Your task to perform on an android device: Open calendar and show me the first week of next month Image 0: 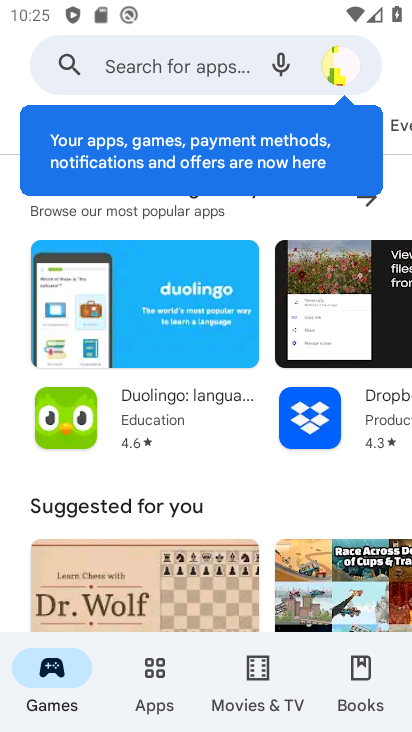
Step 0: press back button
Your task to perform on an android device: Open calendar and show me the first week of next month Image 1: 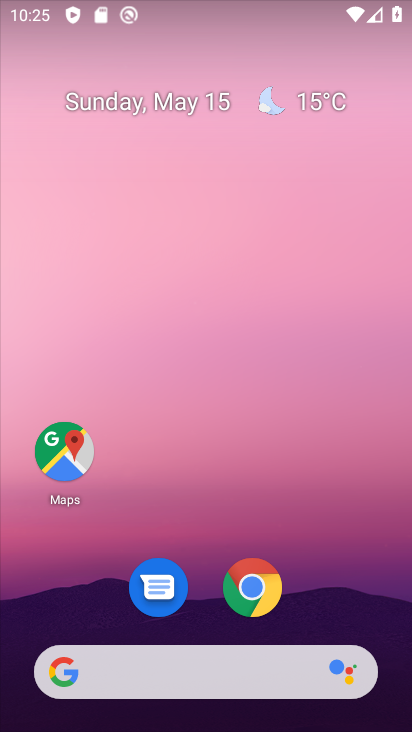
Step 1: drag from (73, 626) to (194, 217)
Your task to perform on an android device: Open calendar and show me the first week of next month Image 2: 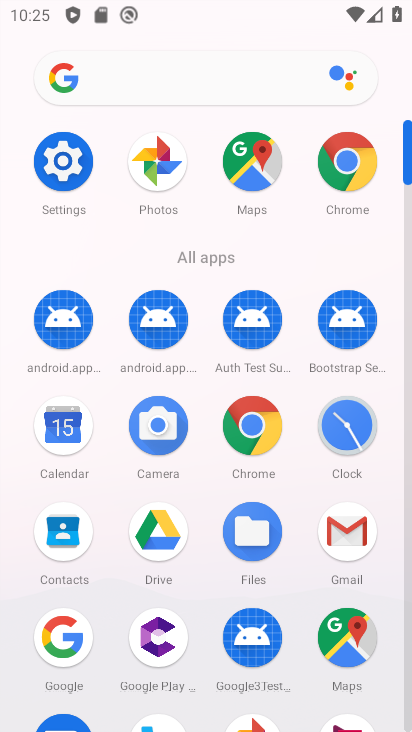
Step 2: click (77, 443)
Your task to perform on an android device: Open calendar and show me the first week of next month Image 3: 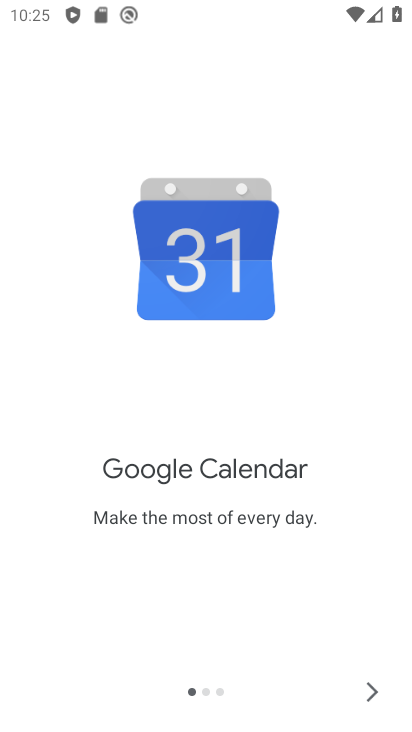
Step 3: click (351, 701)
Your task to perform on an android device: Open calendar and show me the first week of next month Image 4: 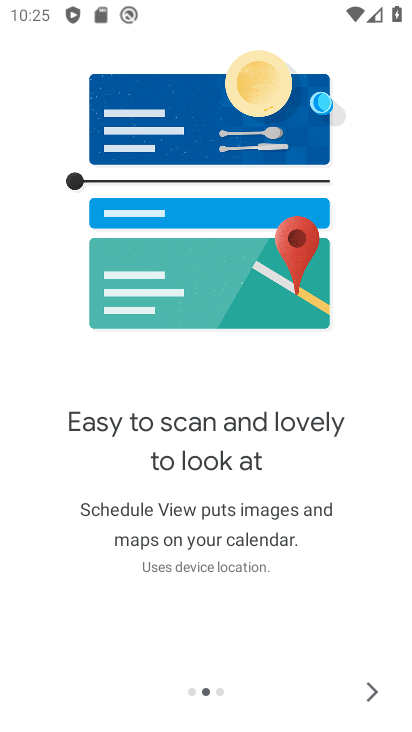
Step 4: click (353, 702)
Your task to perform on an android device: Open calendar and show me the first week of next month Image 5: 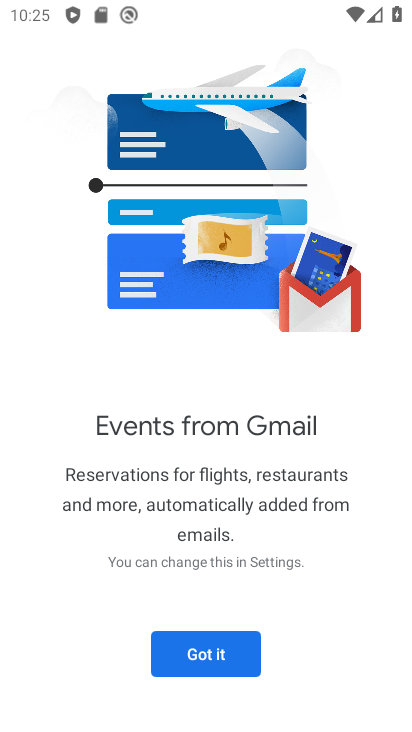
Step 5: click (203, 642)
Your task to perform on an android device: Open calendar and show me the first week of next month Image 6: 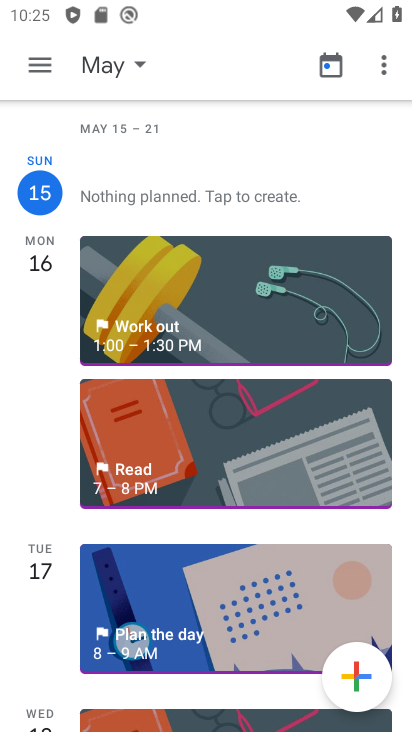
Step 6: click (100, 54)
Your task to perform on an android device: Open calendar and show me the first week of next month Image 7: 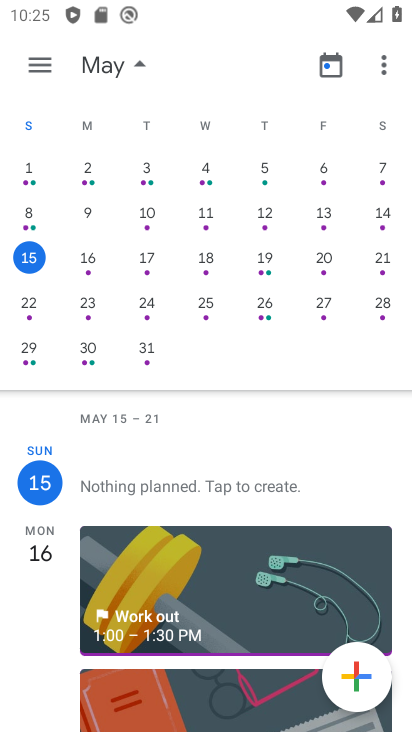
Step 7: drag from (339, 330) to (24, 275)
Your task to perform on an android device: Open calendar and show me the first week of next month Image 8: 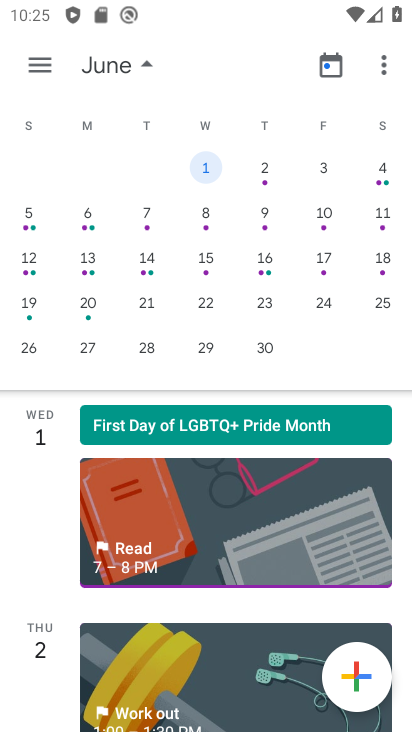
Step 8: click (29, 215)
Your task to perform on an android device: Open calendar and show me the first week of next month Image 9: 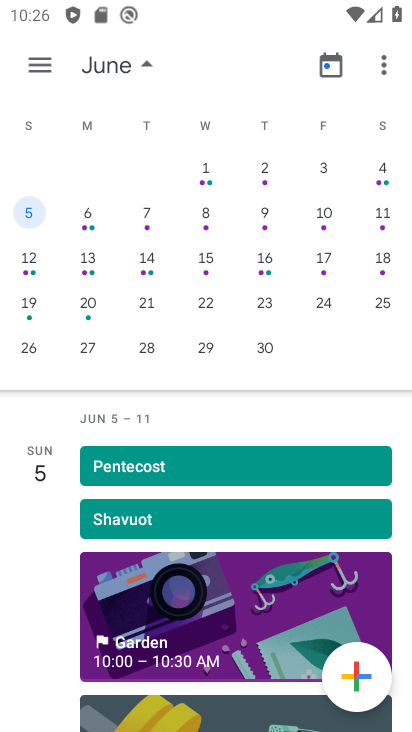
Step 9: click (36, 41)
Your task to perform on an android device: Open calendar and show me the first week of next month Image 10: 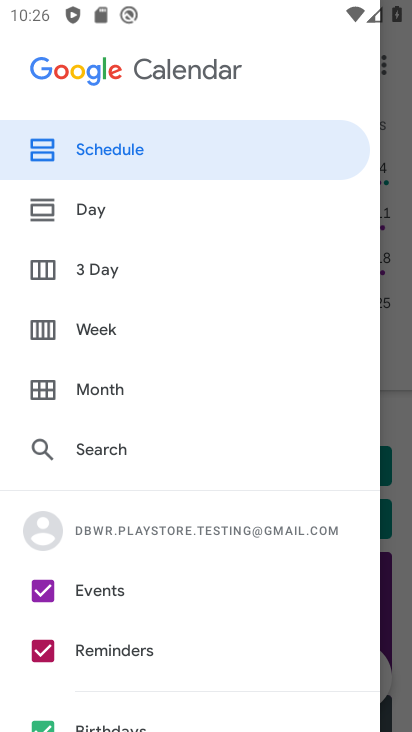
Step 10: click (132, 337)
Your task to perform on an android device: Open calendar and show me the first week of next month Image 11: 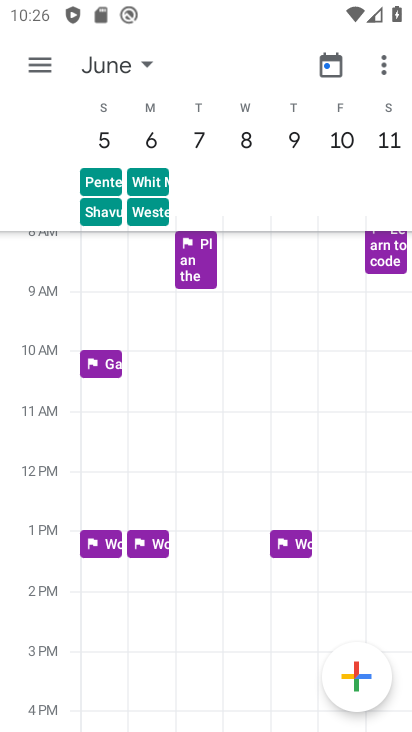
Step 11: task complete